Your task to perform on an android device: turn off airplane mode Image 0: 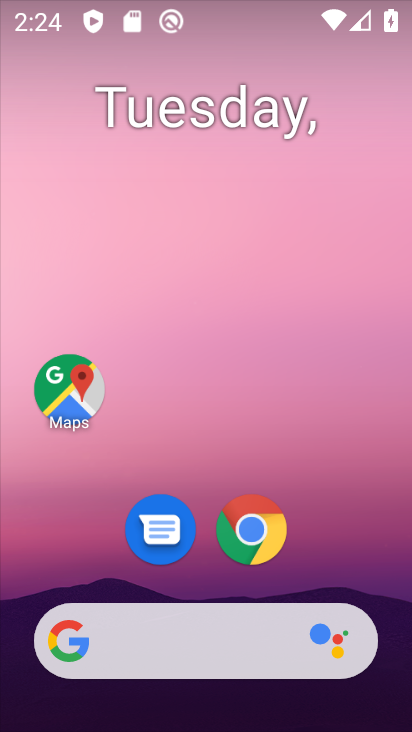
Step 0: drag from (384, 616) to (204, 3)
Your task to perform on an android device: turn off airplane mode Image 1: 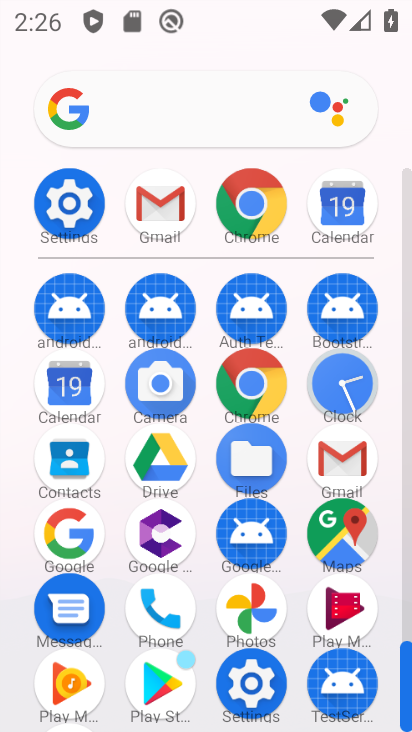
Step 1: task complete